Your task to perform on an android device: open chrome and create a bookmark for the current page Image 0: 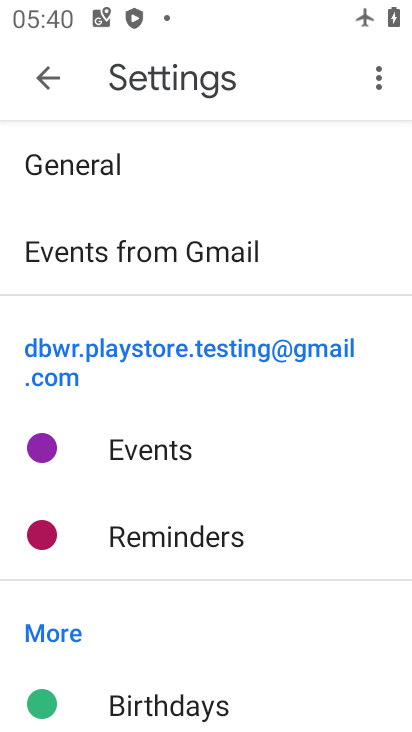
Step 0: press home button
Your task to perform on an android device: open chrome and create a bookmark for the current page Image 1: 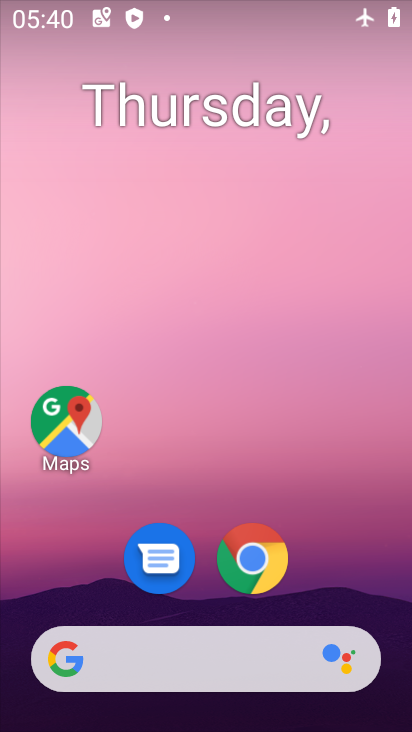
Step 1: click (263, 575)
Your task to perform on an android device: open chrome and create a bookmark for the current page Image 2: 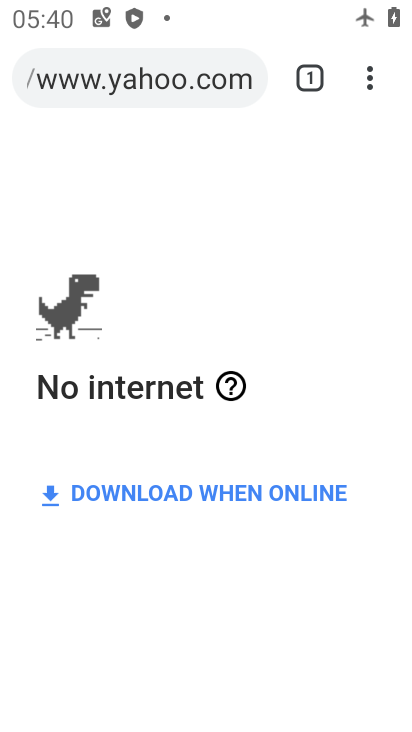
Step 2: click (370, 80)
Your task to perform on an android device: open chrome and create a bookmark for the current page Image 3: 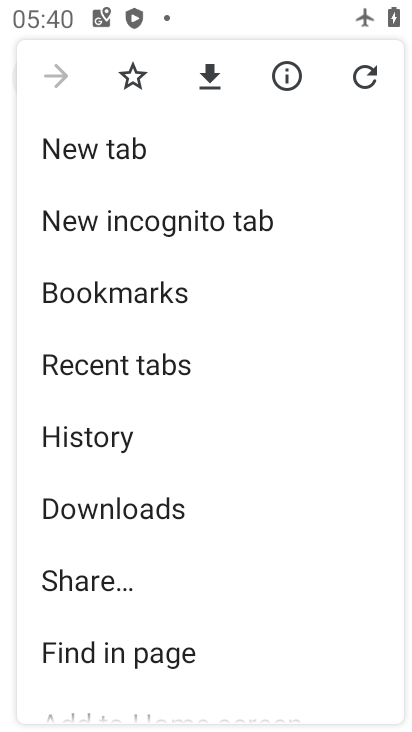
Step 3: click (139, 77)
Your task to perform on an android device: open chrome and create a bookmark for the current page Image 4: 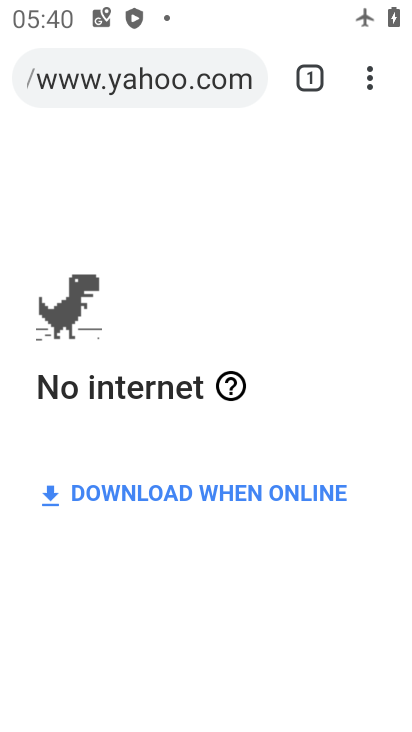
Step 4: task complete